Your task to perform on an android device: turn on sleep mode Image 0: 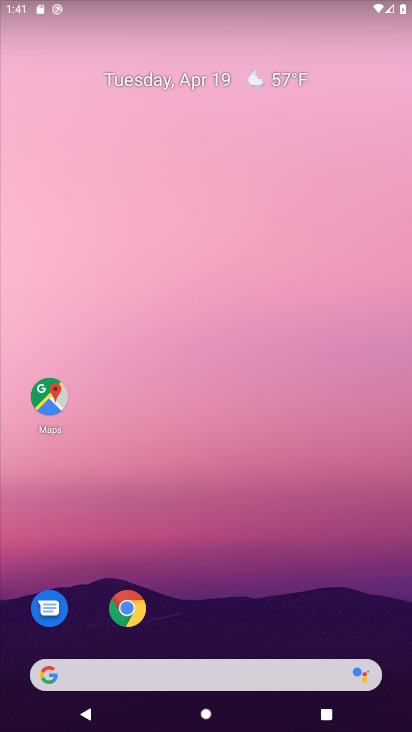
Step 0: drag from (265, 386) to (263, 109)
Your task to perform on an android device: turn on sleep mode Image 1: 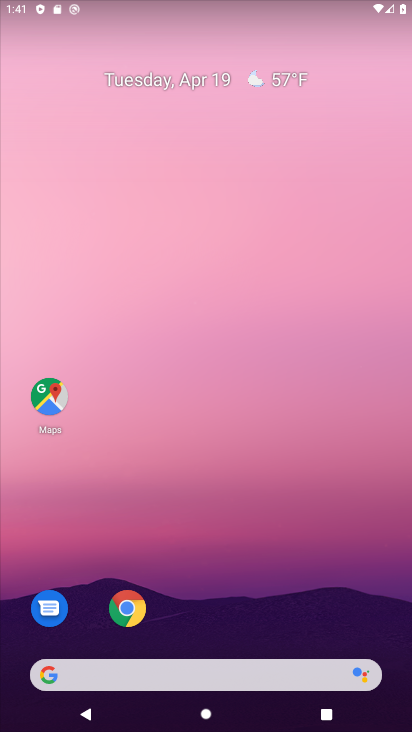
Step 1: drag from (288, 510) to (66, 113)
Your task to perform on an android device: turn on sleep mode Image 2: 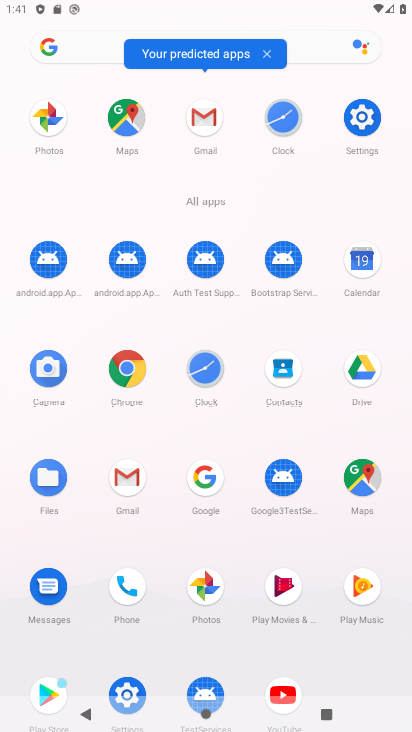
Step 2: click (370, 133)
Your task to perform on an android device: turn on sleep mode Image 3: 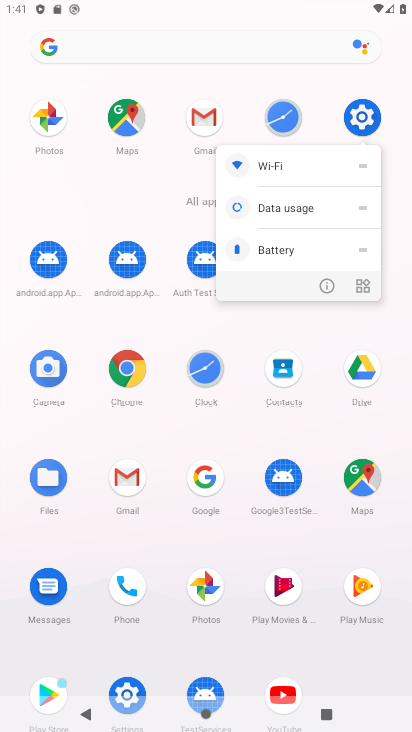
Step 3: click (364, 119)
Your task to perform on an android device: turn on sleep mode Image 4: 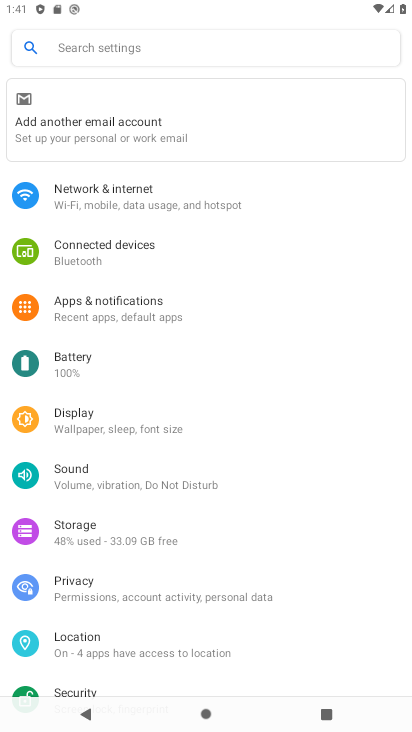
Step 4: click (104, 430)
Your task to perform on an android device: turn on sleep mode Image 5: 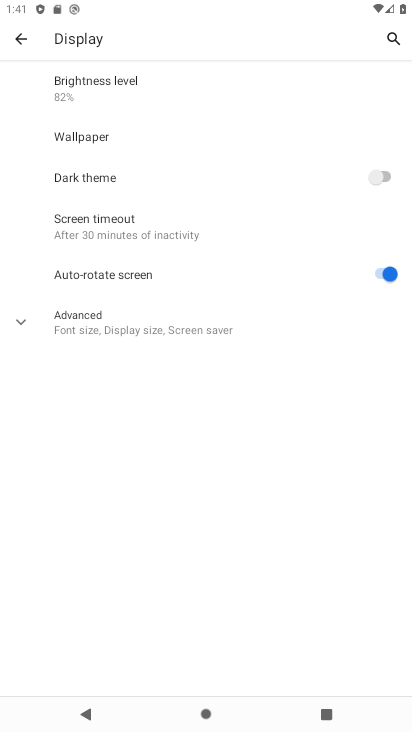
Step 5: click (146, 346)
Your task to perform on an android device: turn on sleep mode Image 6: 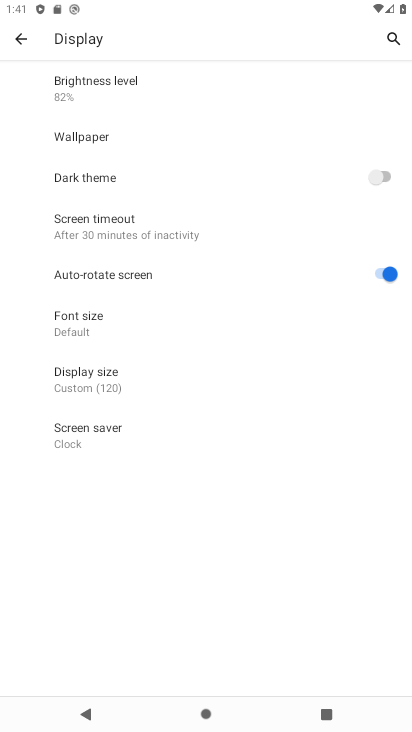
Step 6: task complete